Your task to perform on an android device: Go to Amazon Image 0: 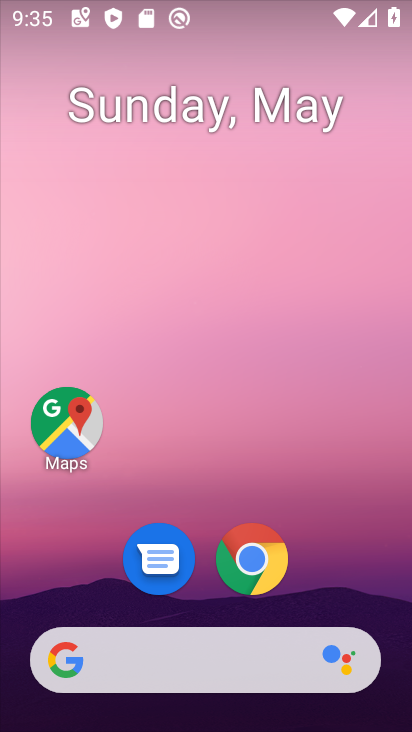
Step 0: press home button
Your task to perform on an android device: Go to Amazon Image 1: 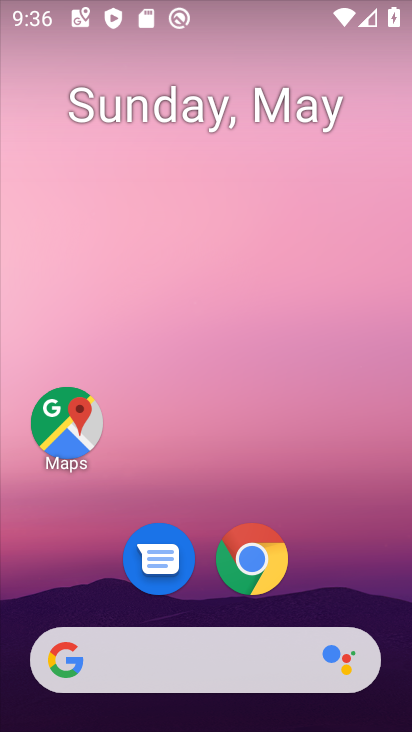
Step 1: click (60, 660)
Your task to perform on an android device: Go to Amazon Image 2: 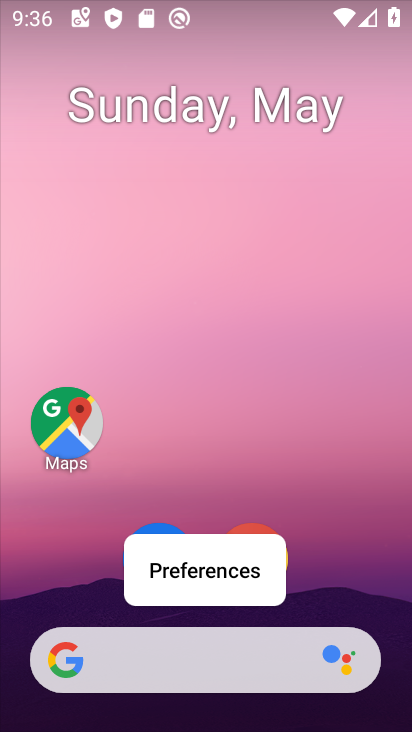
Step 2: click (66, 662)
Your task to perform on an android device: Go to Amazon Image 3: 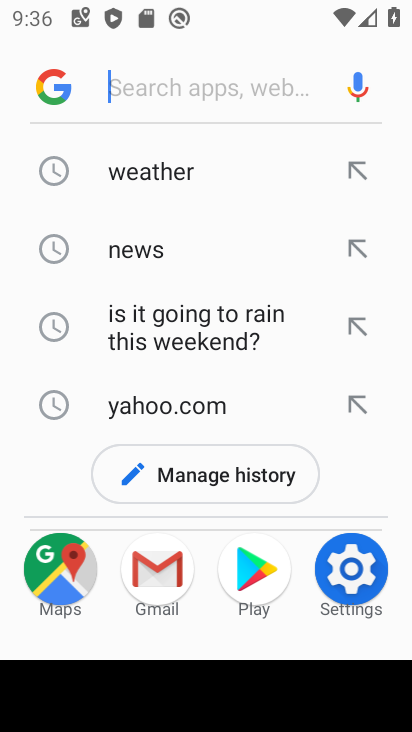
Step 3: type "Amazon"
Your task to perform on an android device: Go to Amazon Image 4: 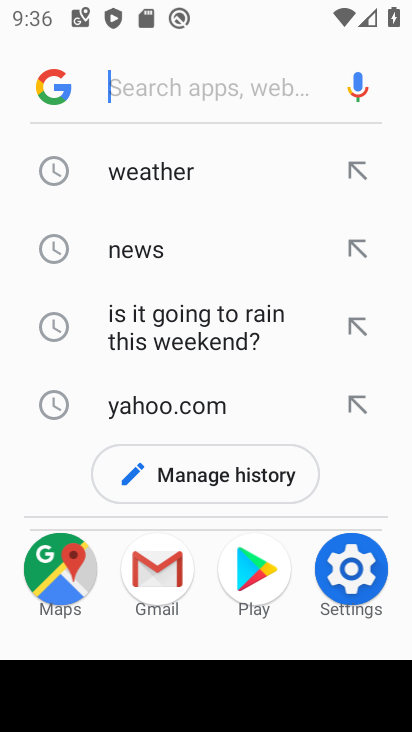
Step 4: click (197, 91)
Your task to perform on an android device: Go to Amazon Image 5: 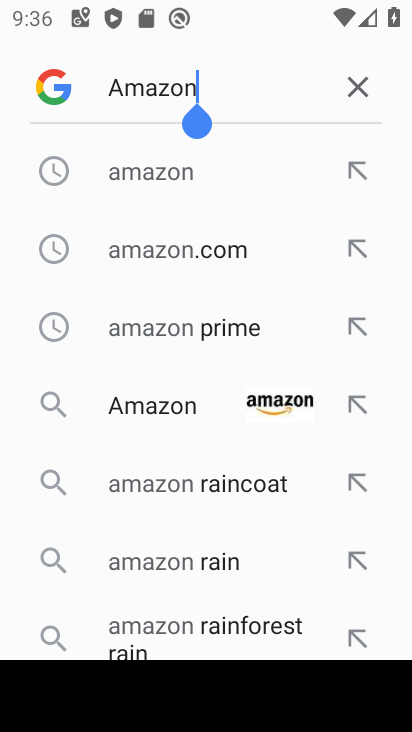
Step 5: click (147, 178)
Your task to perform on an android device: Go to Amazon Image 6: 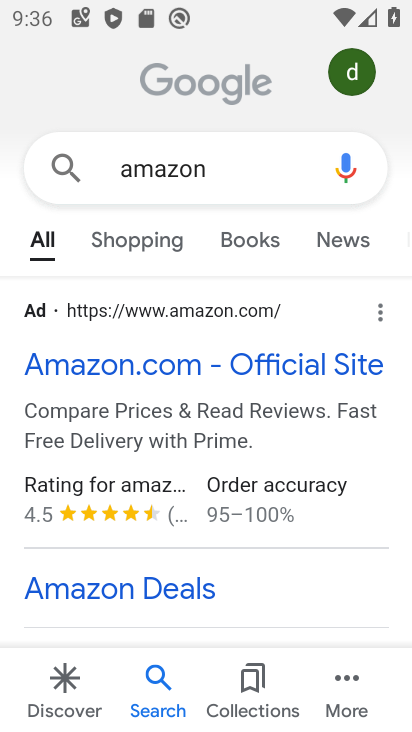
Step 6: click (171, 365)
Your task to perform on an android device: Go to Amazon Image 7: 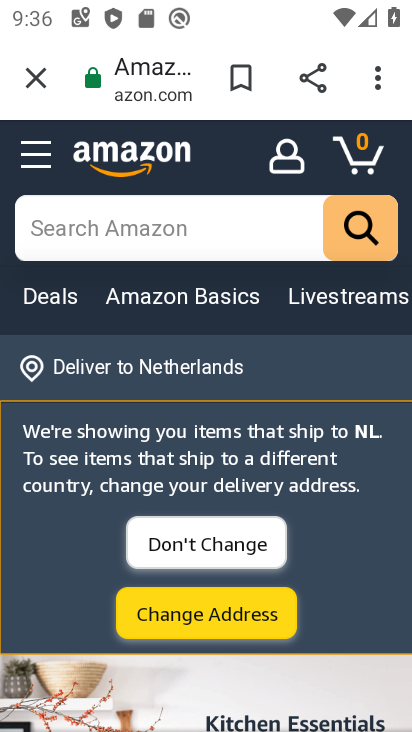
Step 7: task complete